Your task to perform on an android device: What's the weather? Image 0: 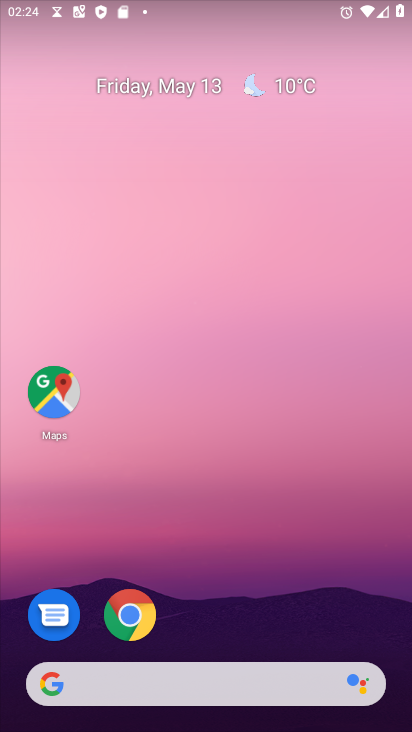
Step 0: click (135, 605)
Your task to perform on an android device: What's the weather? Image 1: 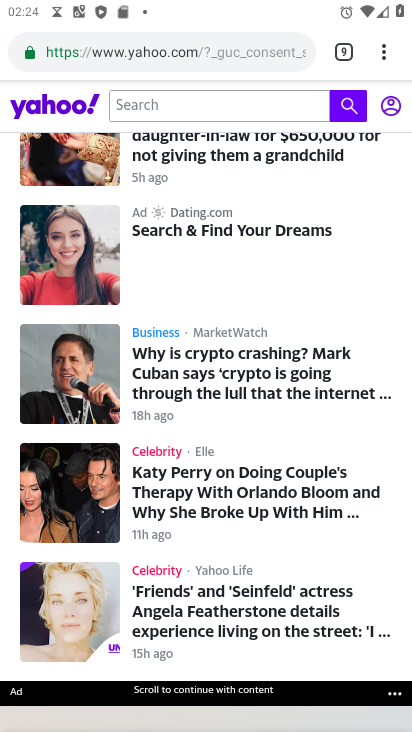
Step 1: click (345, 60)
Your task to perform on an android device: What's the weather? Image 2: 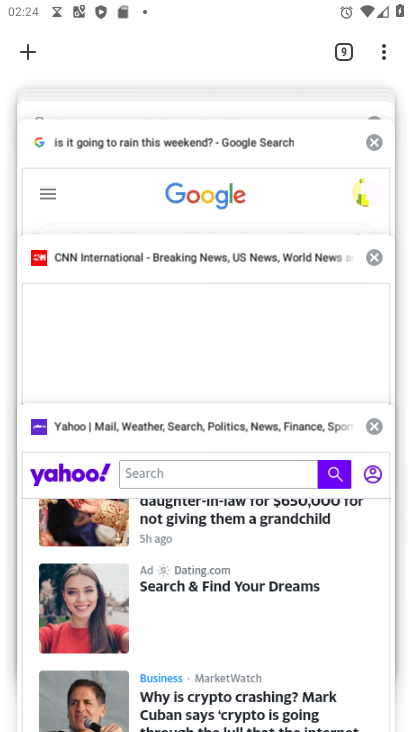
Step 2: drag from (147, 204) to (166, 616)
Your task to perform on an android device: What's the weather? Image 3: 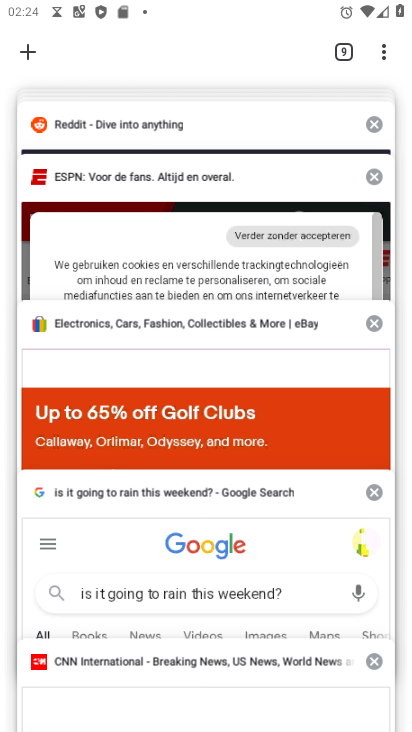
Step 3: drag from (95, 164) to (119, 570)
Your task to perform on an android device: What's the weather? Image 4: 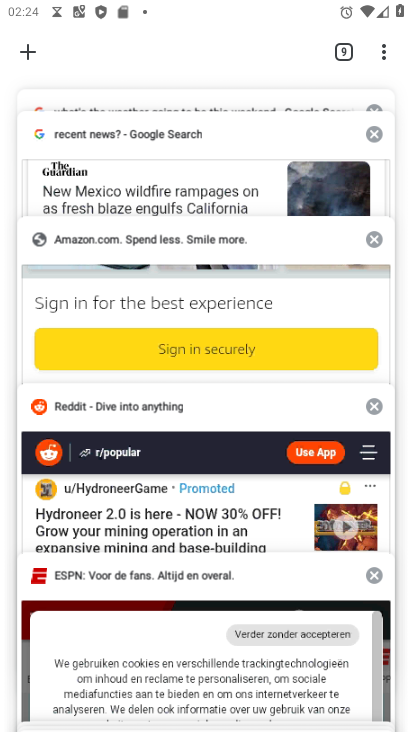
Step 4: drag from (140, 209) to (104, 538)
Your task to perform on an android device: What's the weather? Image 5: 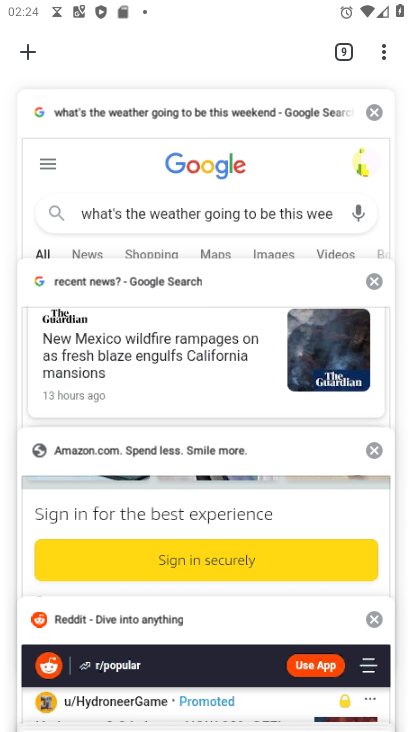
Step 5: click (27, 49)
Your task to perform on an android device: What's the weather? Image 6: 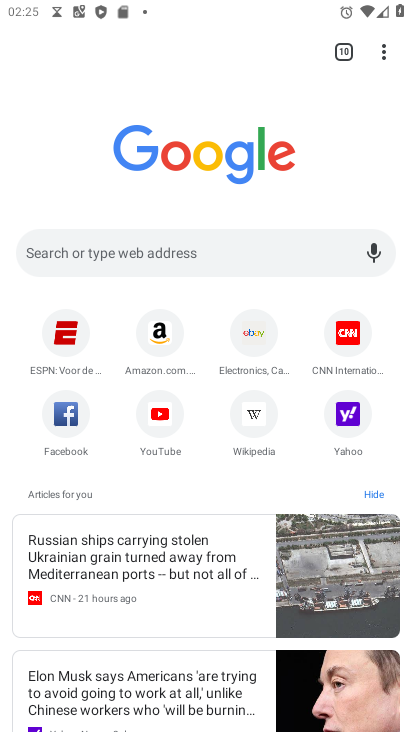
Step 6: click (76, 259)
Your task to perform on an android device: What's the weather? Image 7: 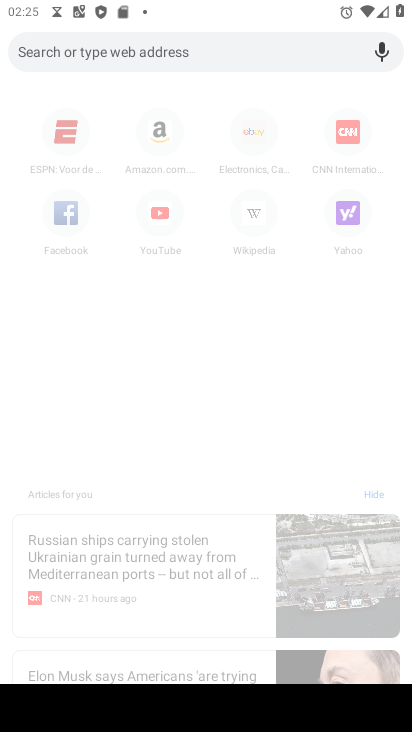
Step 7: type "what's the weather?"
Your task to perform on an android device: What's the weather? Image 8: 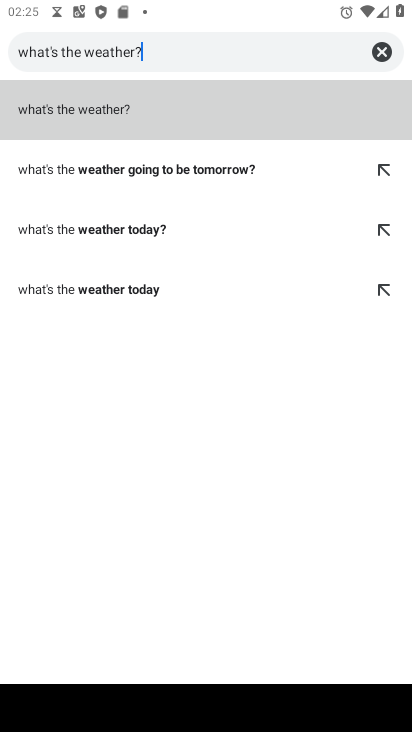
Step 8: click (89, 112)
Your task to perform on an android device: What's the weather? Image 9: 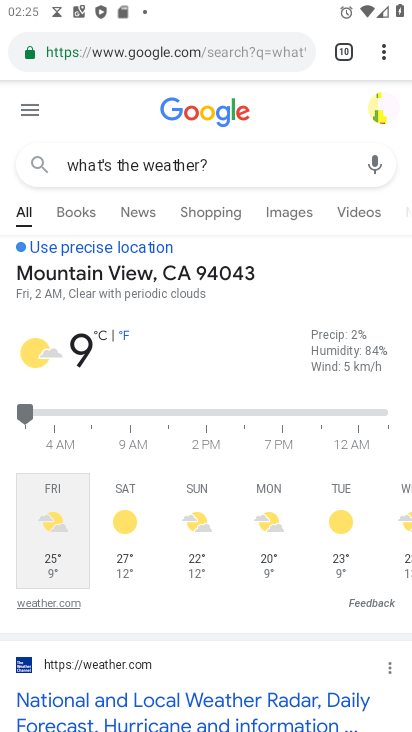
Step 9: task complete